Your task to perform on an android device: Open battery settings Image 0: 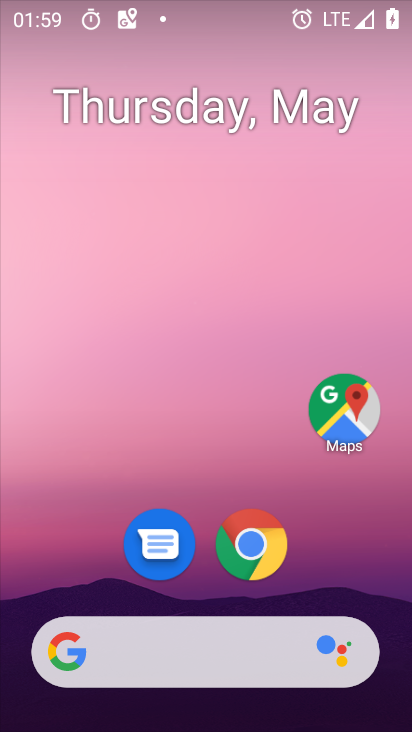
Step 0: drag from (374, 533) to (375, 129)
Your task to perform on an android device: Open battery settings Image 1: 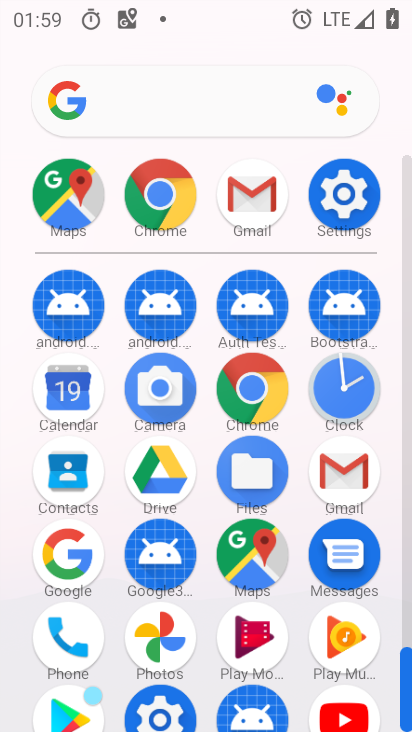
Step 1: click (336, 215)
Your task to perform on an android device: Open battery settings Image 2: 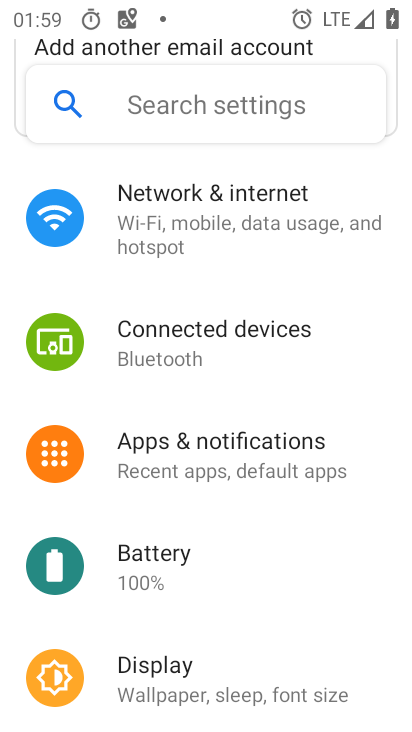
Step 2: drag from (367, 585) to (377, 390)
Your task to perform on an android device: Open battery settings Image 3: 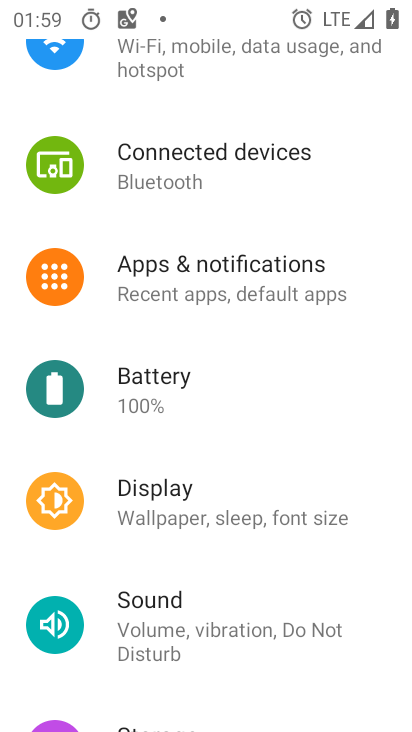
Step 3: drag from (366, 666) to (369, 444)
Your task to perform on an android device: Open battery settings Image 4: 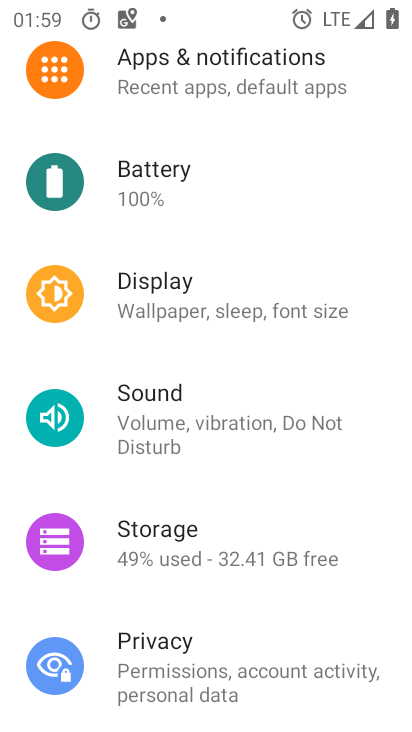
Step 4: drag from (370, 628) to (366, 471)
Your task to perform on an android device: Open battery settings Image 5: 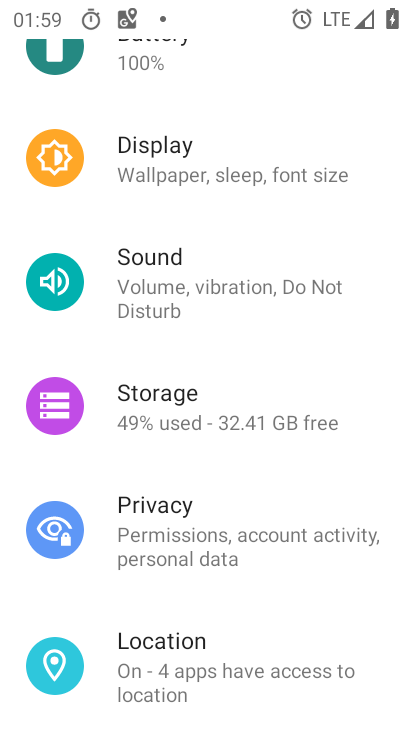
Step 5: drag from (329, 648) to (330, 468)
Your task to perform on an android device: Open battery settings Image 6: 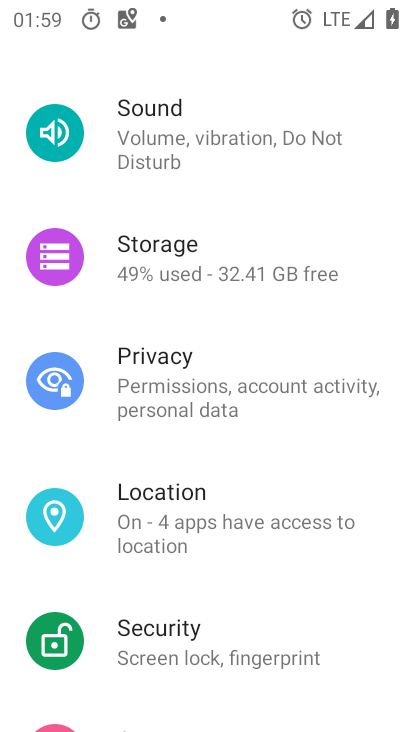
Step 6: drag from (337, 653) to (353, 472)
Your task to perform on an android device: Open battery settings Image 7: 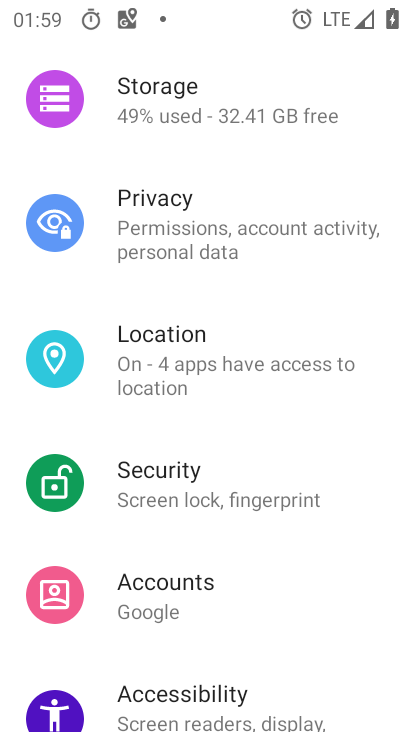
Step 7: drag from (328, 621) to (326, 454)
Your task to perform on an android device: Open battery settings Image 8: 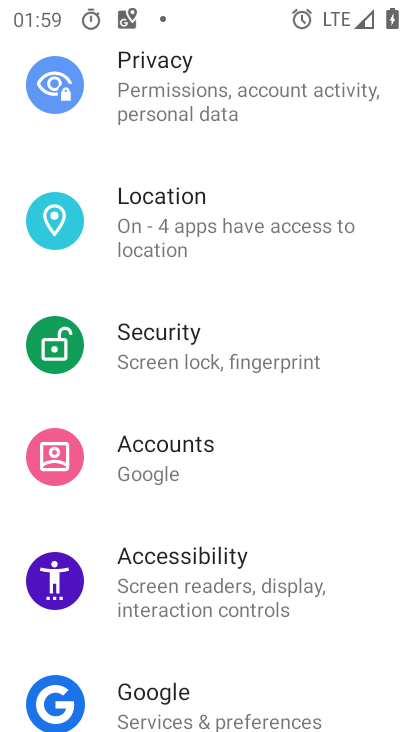
Step 8: drag from (343, 663) to (343, 500)
Your task to perform on an android device: Open battery settings Image 9: 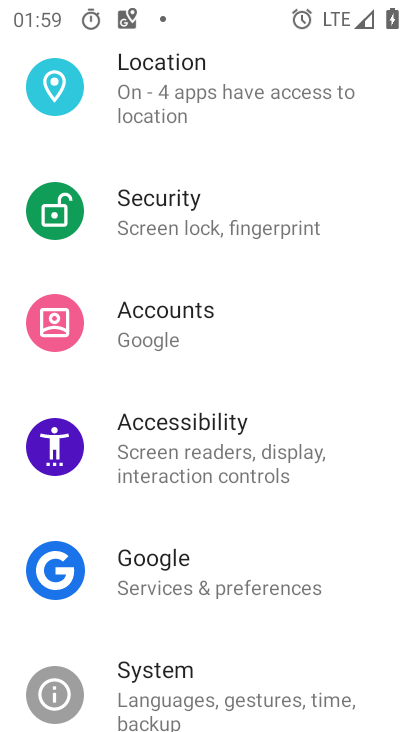
Step 9: drag from (340, 671) to (364, 493)
Your task to perform on an android device: Open battery settings Image 10: 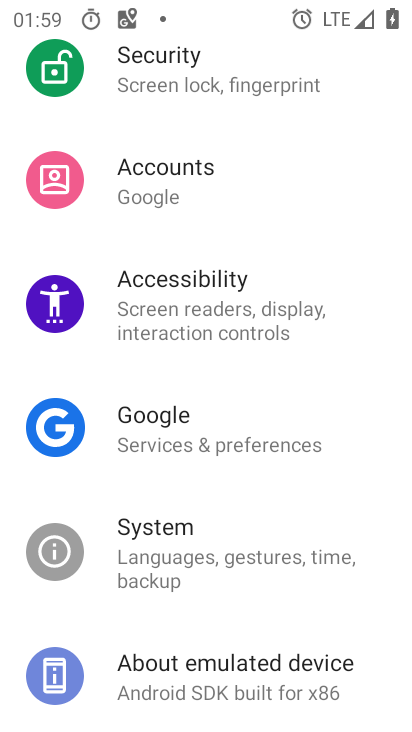
Step 10: drag from (357, 646) to (354, 507)
Your task to perform on an android device: Open battery settings Image 11: 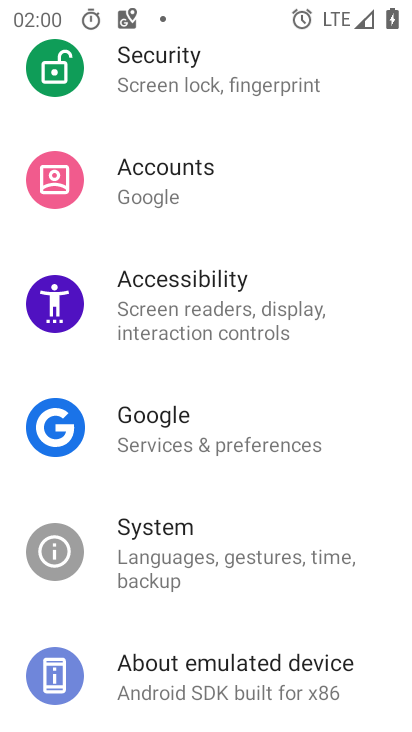
Step 11: drag from (358, 557) to (356, 382)
Your task to perform on an android device: Open battery settings Image 12: 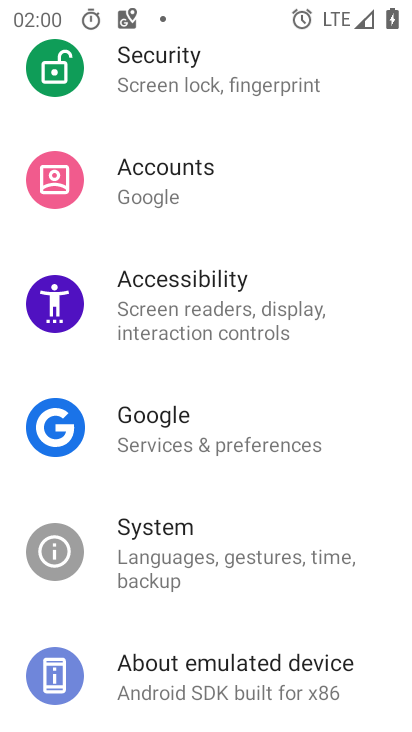
Step 12: drag from (358, 303) to (351, 508)
Your task to perform on an android device: Open battery settings Image 13: 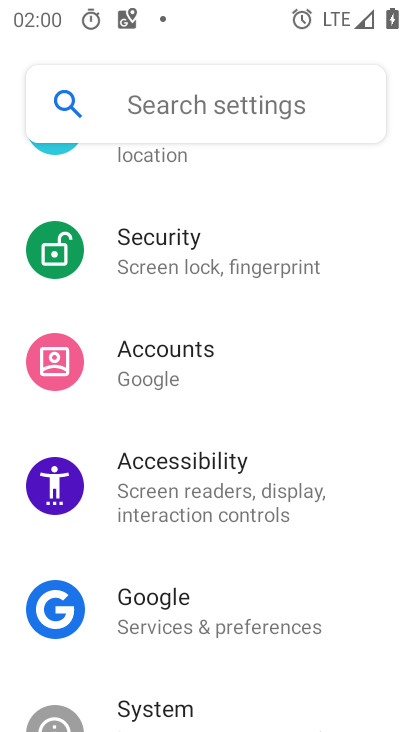
Step 13: drag from (358, 326) to (357, 467)
Your task to perform on an android device: Open battery settings Image 14: 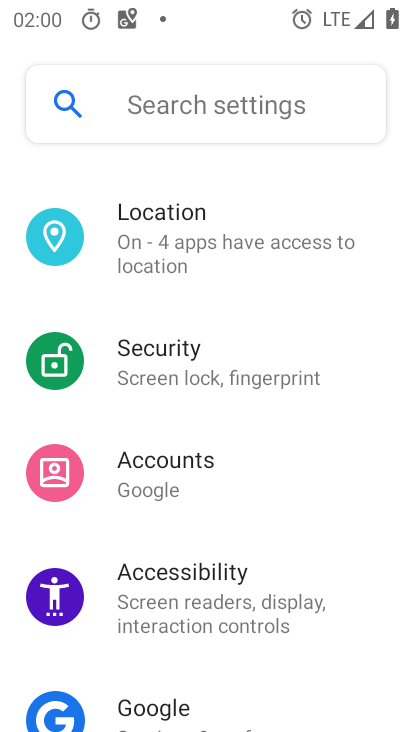
Step 14: drag from (363, 305) to (361, 489)
Your task to perform on an android device: Open battery settings Image 15: 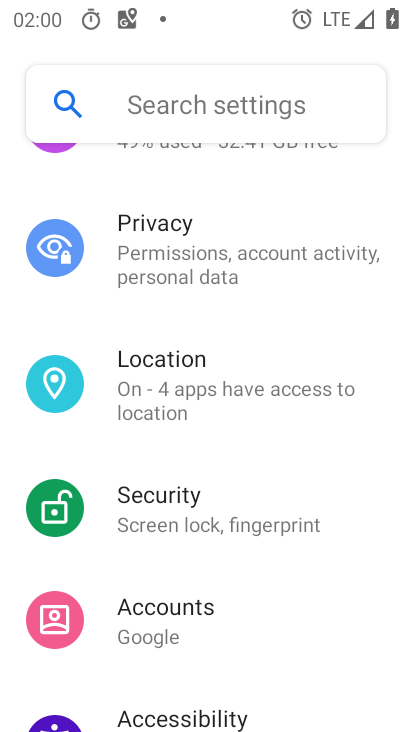
Step 15: drag from (364, 308) to (363, 422)
Your task to perform on an android device: Open battery settings Image 16: 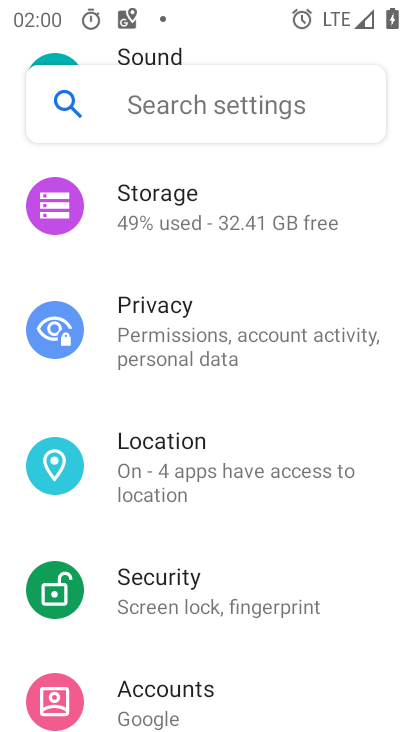
Step 16: drag from (376, 250) to (385, 437)
Your task to perform on an android device: Open battery settings Image 17: 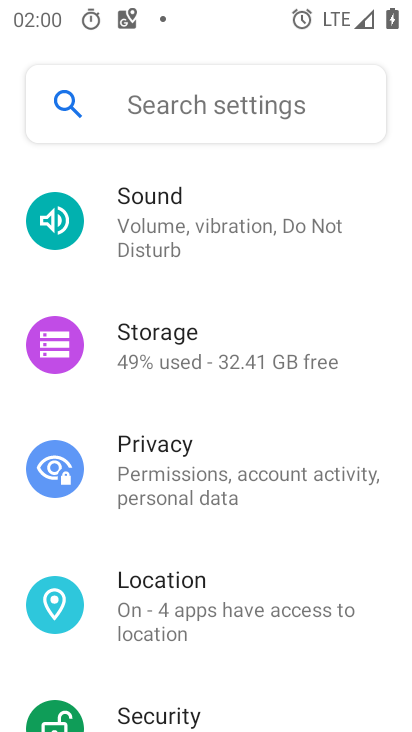
Step 17: drag from (371, 321) to (345, 505)
Your task to perform on an android device: Open battery settings Image 18: 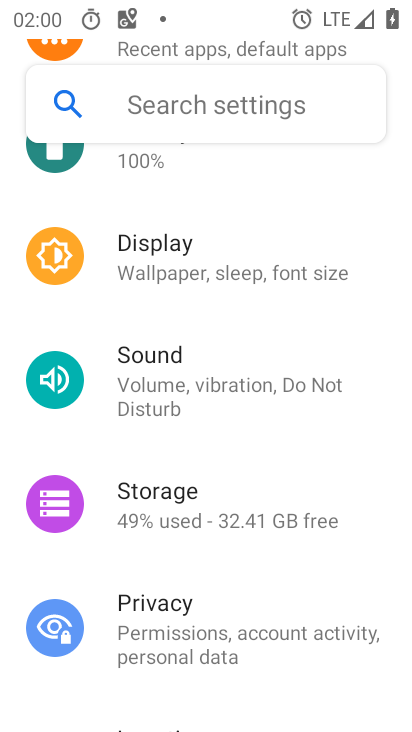
Step 18: drag from (357, 229) to (360, 382)
Your task to perform on an android device: Open battery settings Image 19: 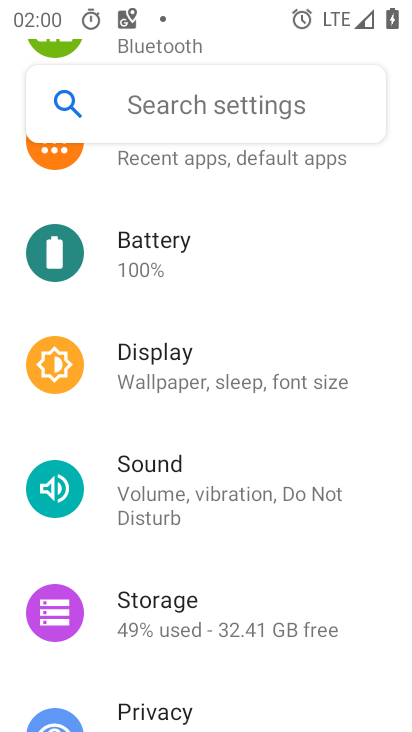
Step 19: drag from (361, 300) to (356, 499)
Your task to perform on an android device: Open battery settings Image 20: 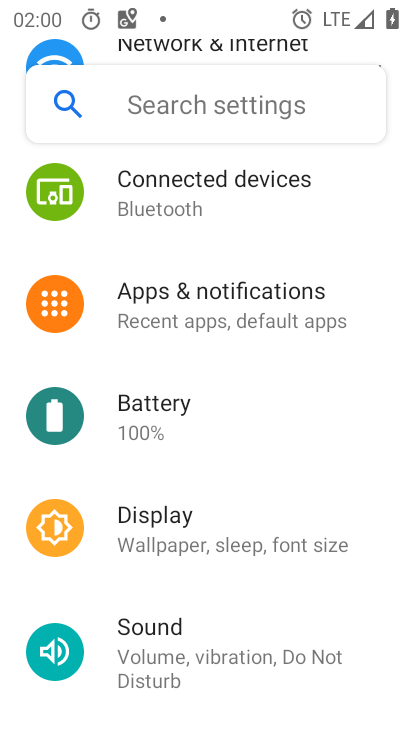
Step 20: drag from (358, 213) to (358, 458)
Your task to perform on an android device: Open battery settings Image 21: 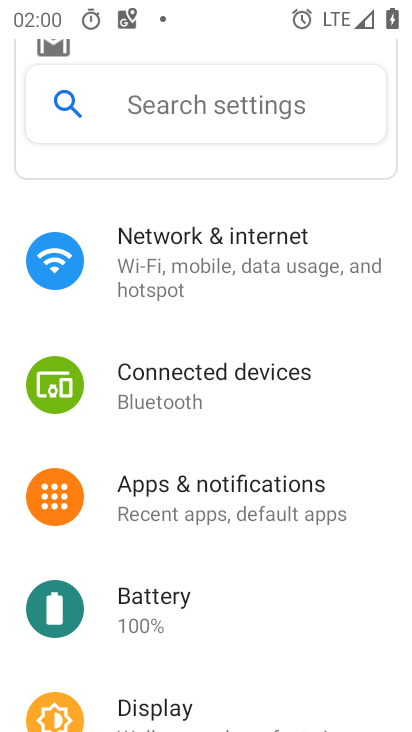
Step 21: drag from (351, 343) to (354, 485)
Your task to perform on an android device: Open battery settings Image 22: 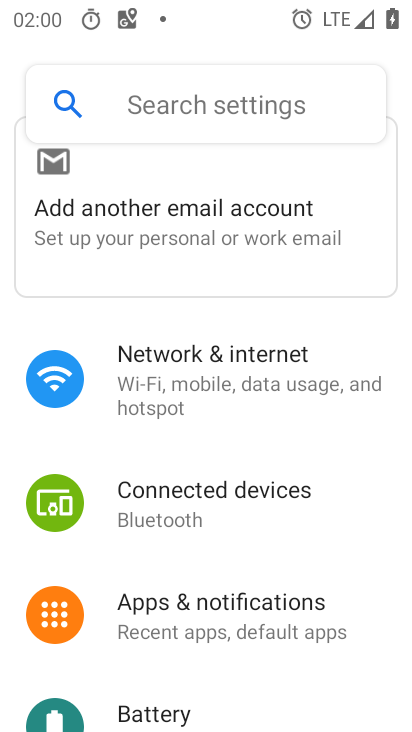
Step 22: drag from (315, 630) to (317, 473)
Your task to perform on an android device: Open battery settings Image 23: 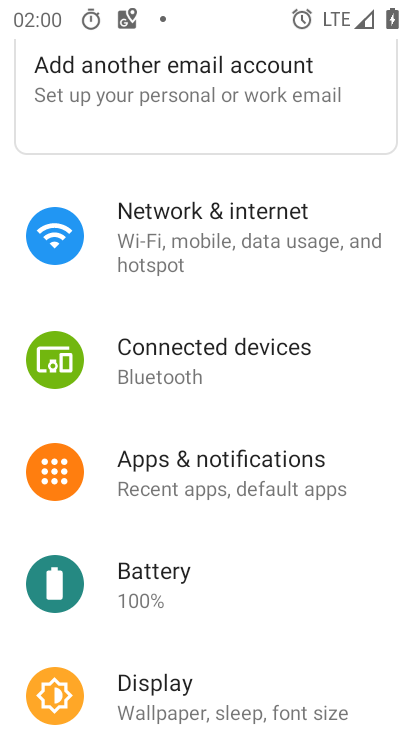
Step 23: click (145, 574)
Your task to perform on an android device: Open battery settings Image 24: 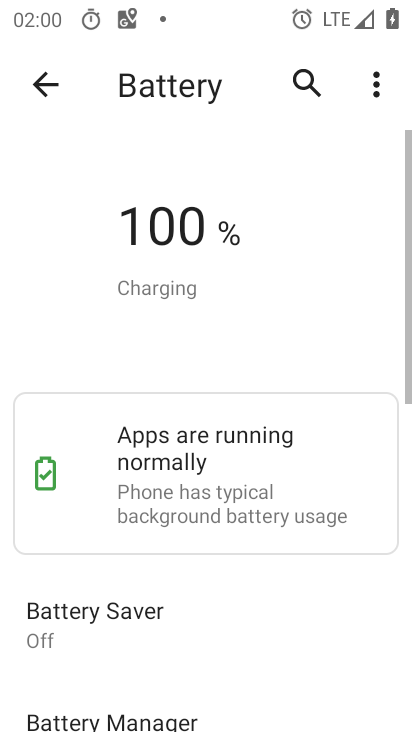
Step 24: task complete